Your task to perform on an android device: Open Google Chrome and open the bookmarks view Image 0: 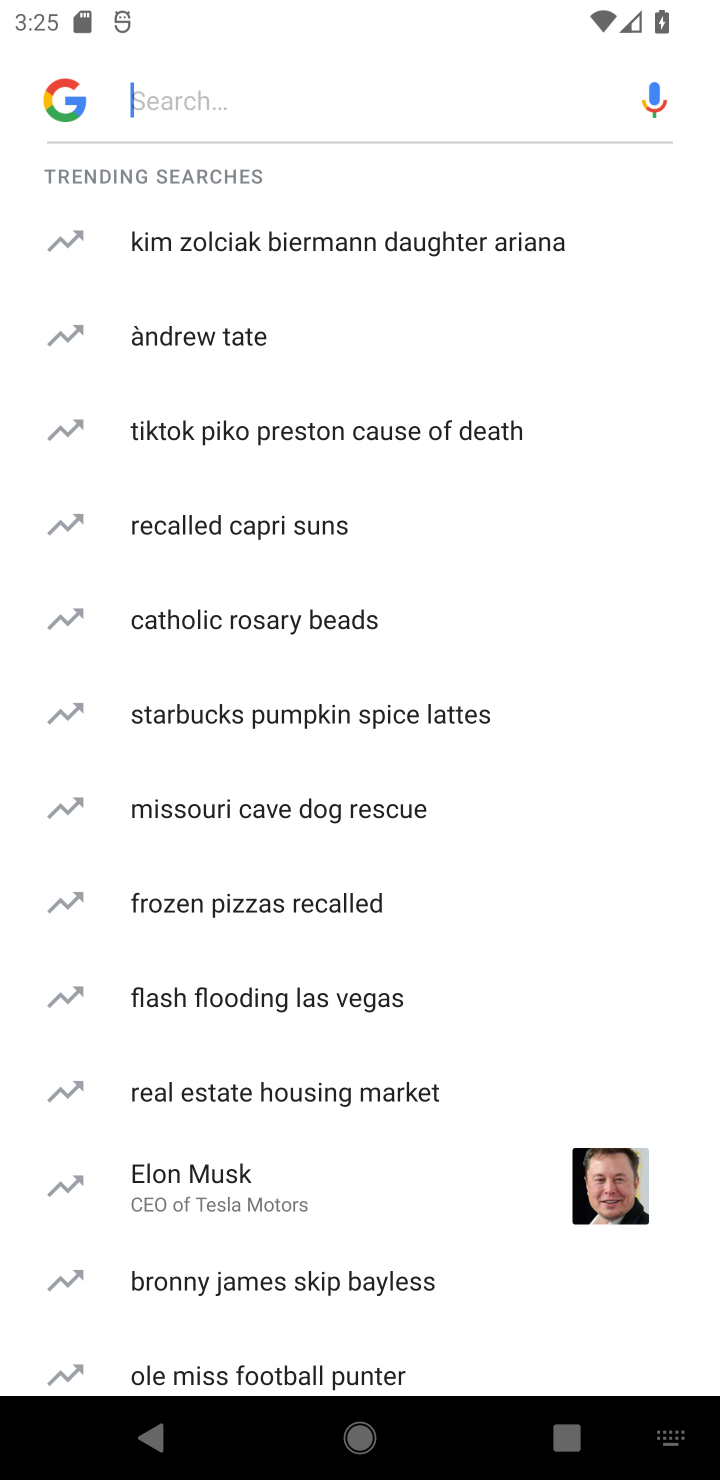
Step 0: press home button
Your task to perform on an android device: Open Google Chrome and open the bookmarks view Image 1: 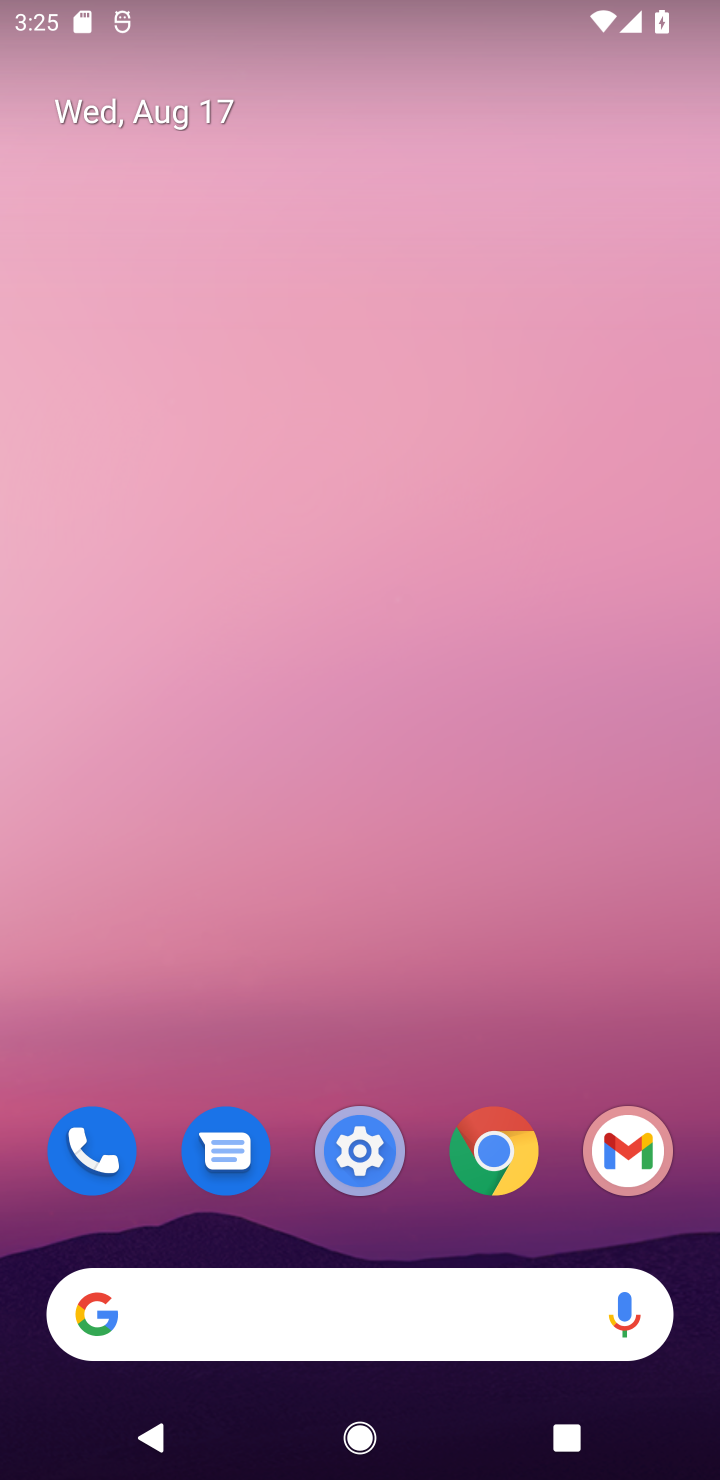
Step 1: click (471, 1197)
Your task to perform on an android device: Open Google Chrome and open the bookmarks view Image 2: 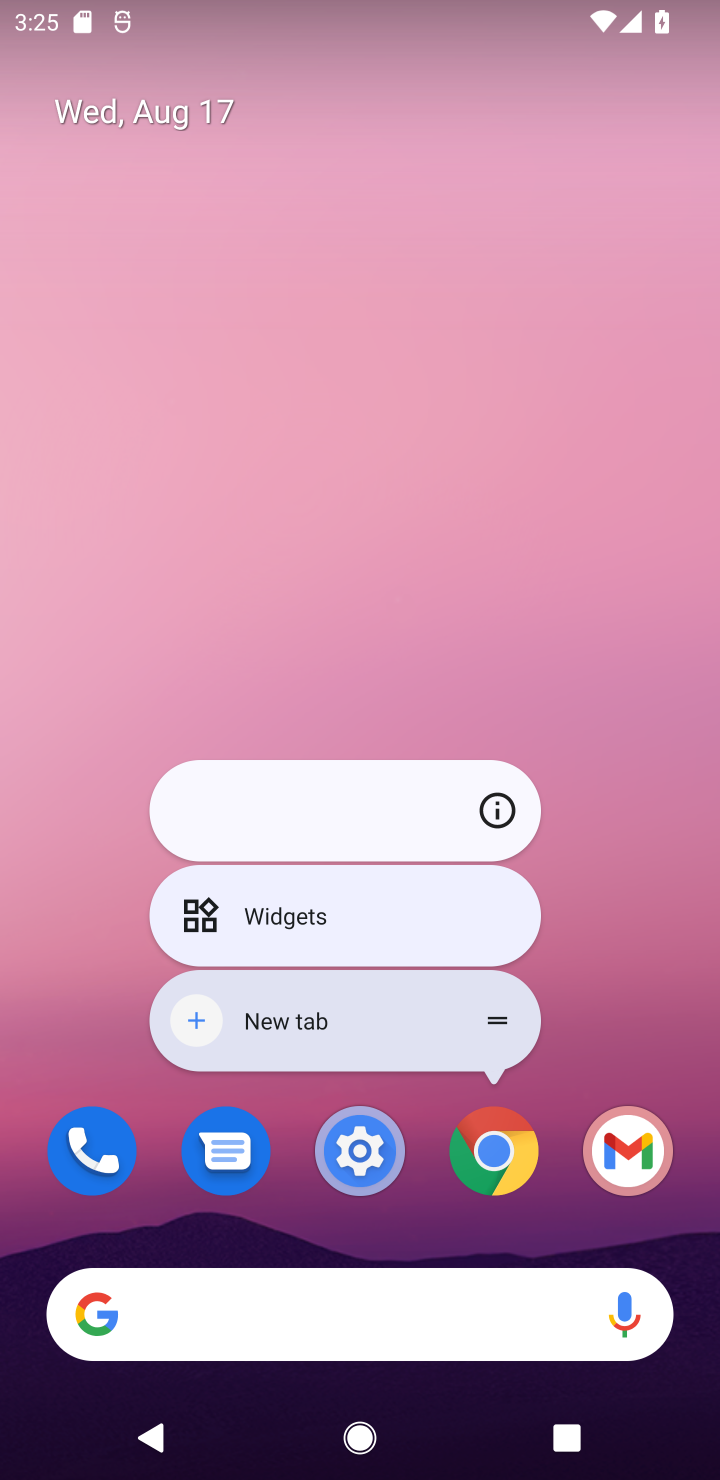
Step 2: click (510, 1171)
Your task to perform on an android device: Open Google Chrome and open the bookmarks view Image 3: 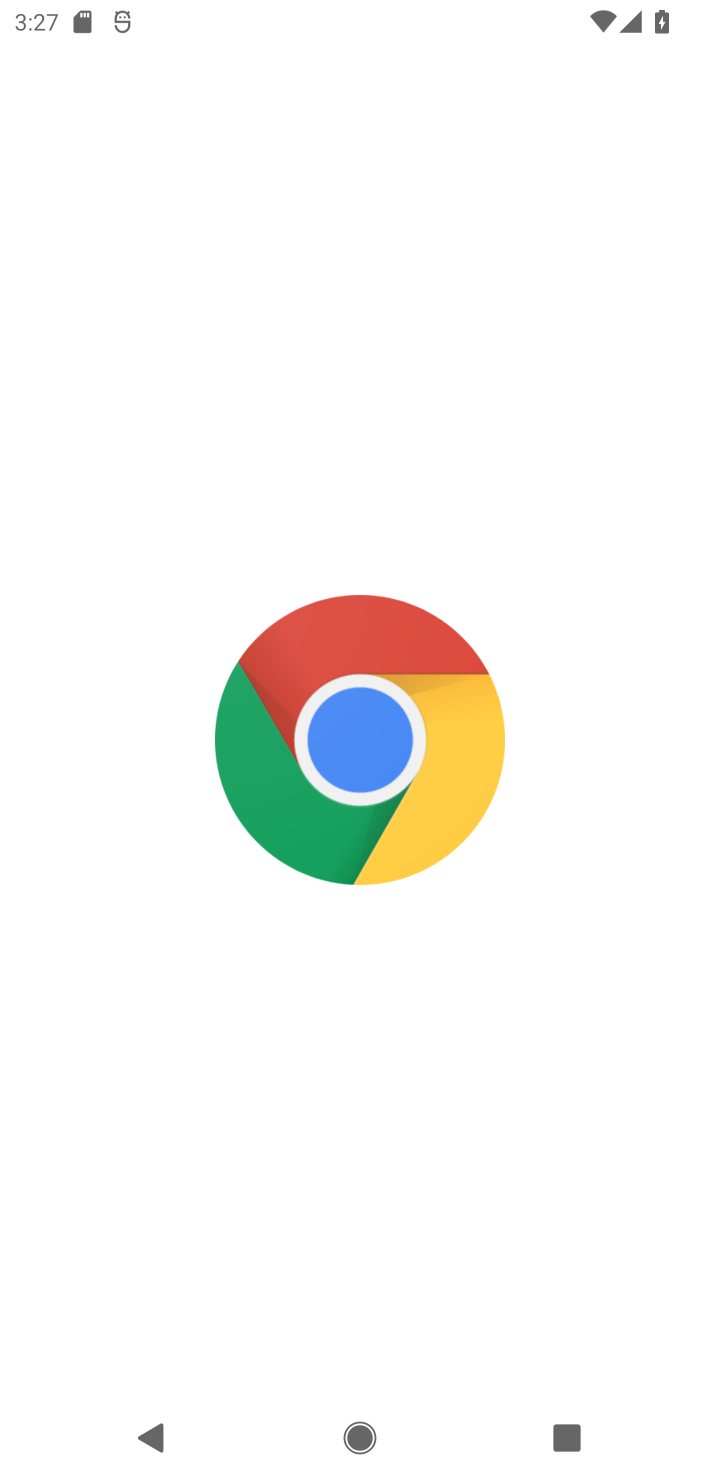
Step 3: task complete